Your task to perform on an android device: Go to Android settings Image 0: 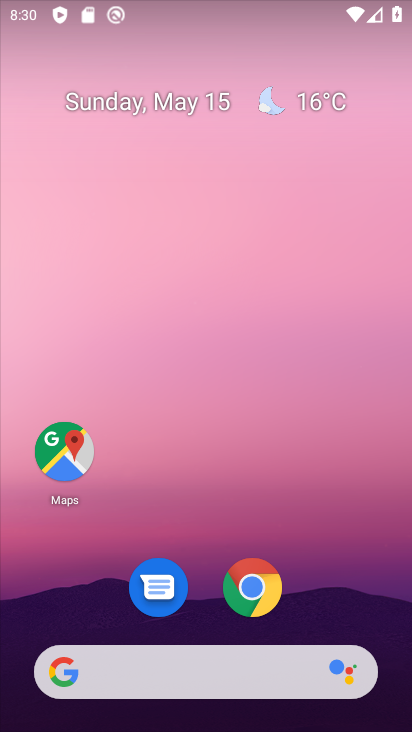
Step 0: drag from (334, 558) to (314, 5)
Your task to perform on an android device: Go to Android settings Image 1: 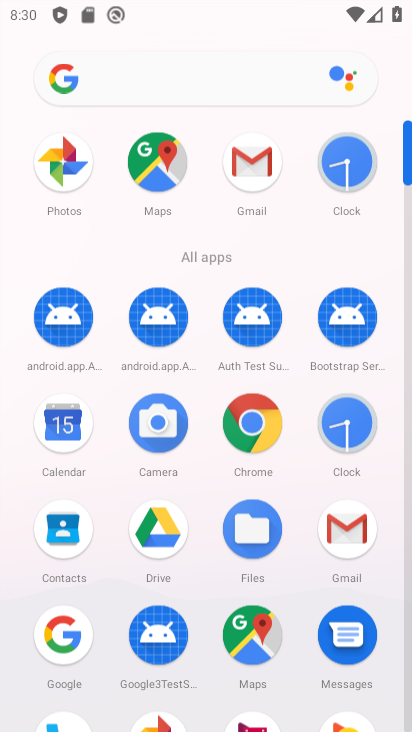
Step 1: drag from (310, 241) to (305, 5)
Your task to perform on an android device: Go to Android settings Image 2: 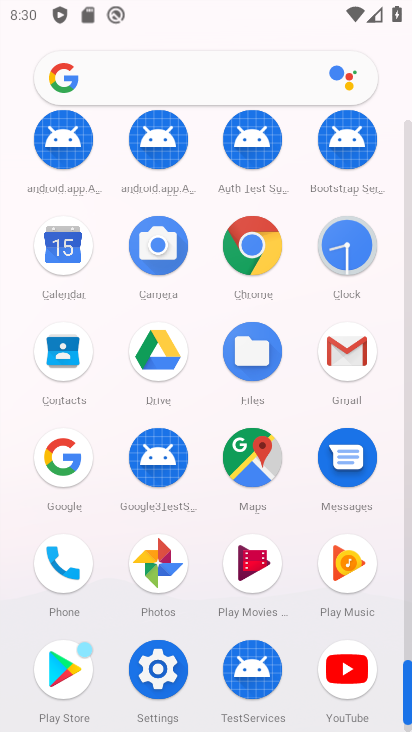
Step 2: drag from (255, 600) to (256, 316)
Your task to perform on an android device: Go to Android settings Image 3: 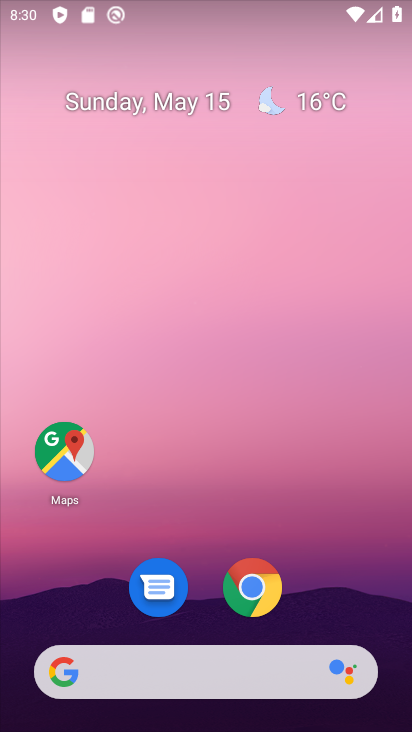
Step 3: click (162, 681)
Your task to perform on an android device: Go to Android settings Image 4: 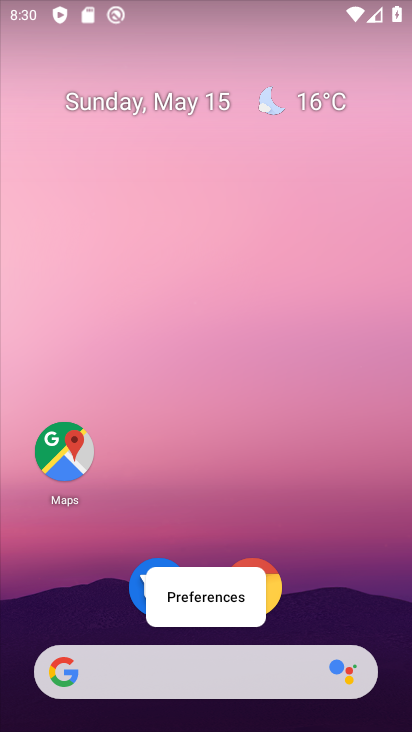
Step 4: drag from (327, 535) to (246, 18)
Your task to perform on an android device: Go to Android settings Image 5: 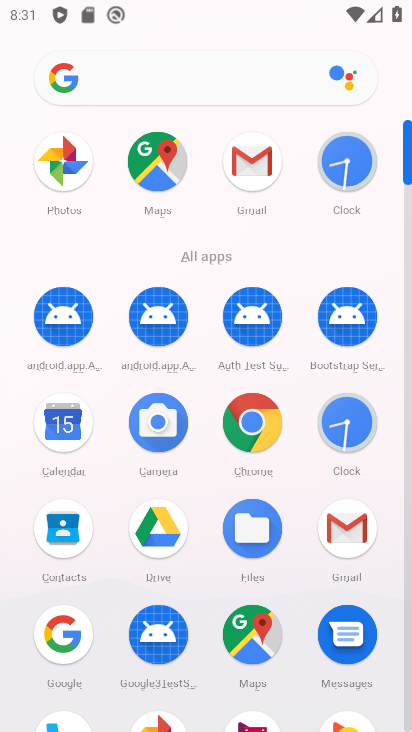
Step 5: drag from (198, 682) to (190, 205)
Your task to perform on an android device: Go to Android settings Image 6: 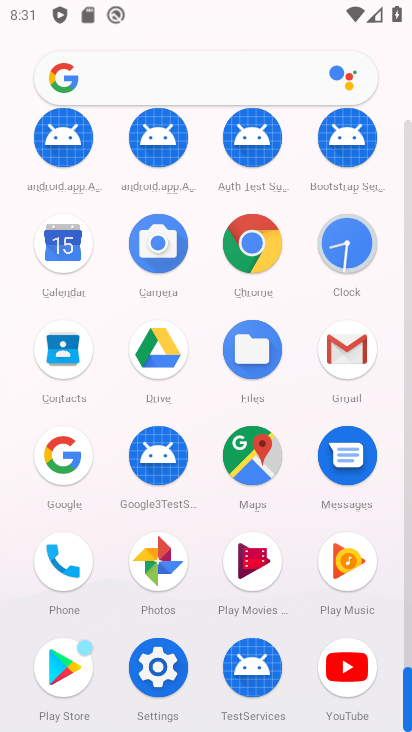
Step 6: click (162, 680)
Your task to perform on an android device: Go to Android settings Image 7: 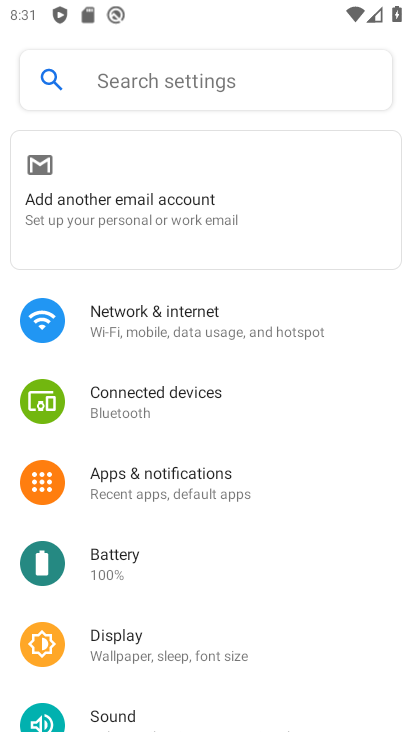
Step 7: task complete